Your task to perform on an android device: read, delete, or share a saved page in the chrome app Image 0: 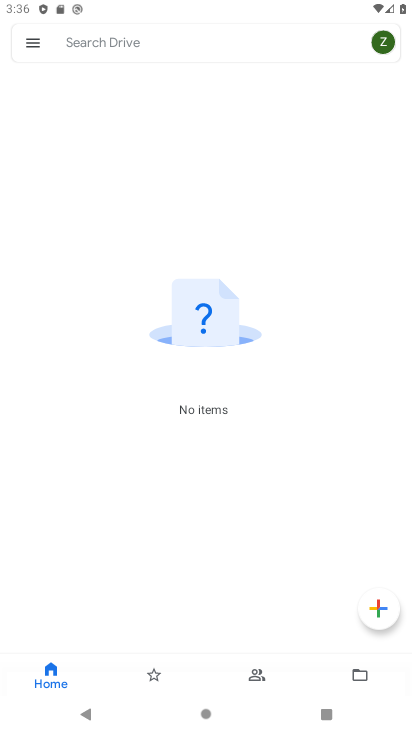
Step 0: press home button
Your task to perform on an android device: read, delete, or share a saved page in the chrome app Image 1: 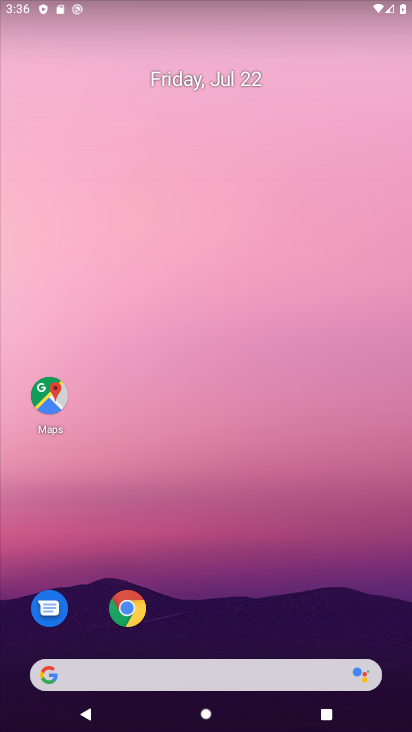
Step 1: drag from (225, 723) to (226, 62)
Your task to perform on an android device: read, delete, or share a saved page in the chrome app Image 2: 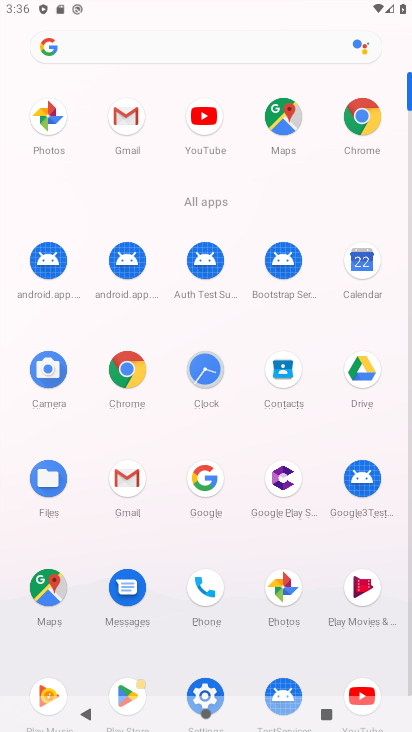
Step 2: click (121, 380)
Your task to perform on an android device: read, delete, or share a saved page in the chrome app Image 3: 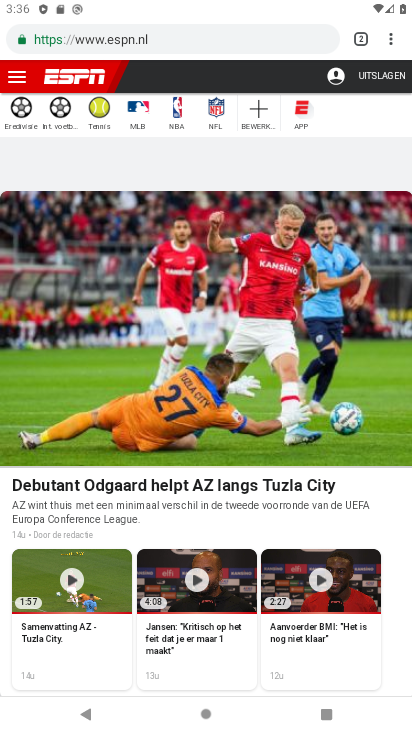
Step 3: click (391, 41)
Your task to perform on an android device: read, delete, or share a saved page in the chrome app Image 4: 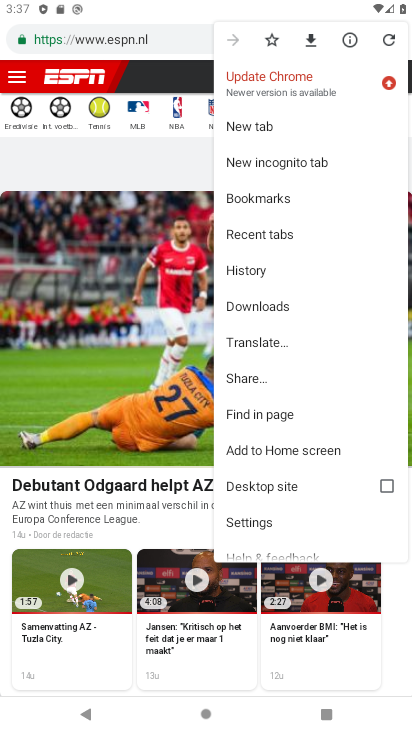
Step 4: click (253, 303)
Your task to perform on an android device: read, delete, or share a saved page in the chrome app Image 5: 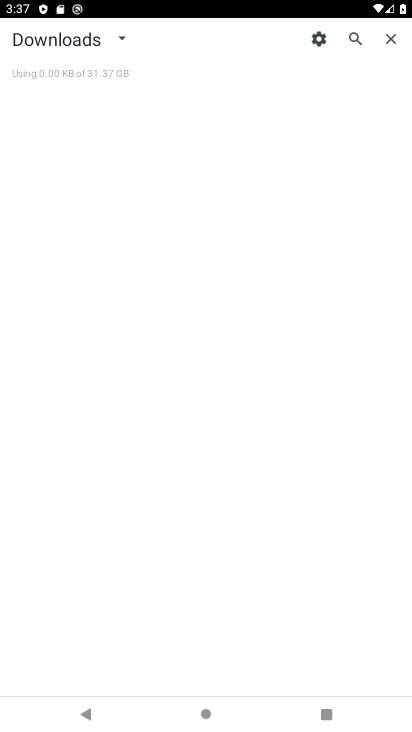
Step 5: task complete